Your task to perform on an android device: turn on sleep mode Image 0: 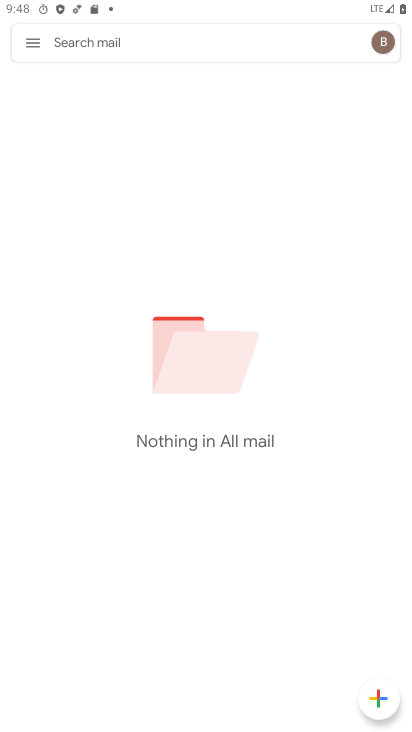
Step 0: press home button
Your task to perform on an android device: turn on sleep mode Image 1: 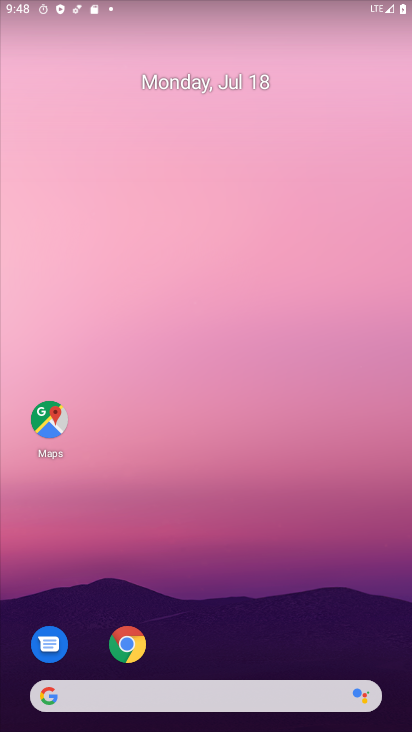
Step 1: drag from (199, 658) to (231, 60)
Your task to perform on an android device: turn on sleep mode Image 2: 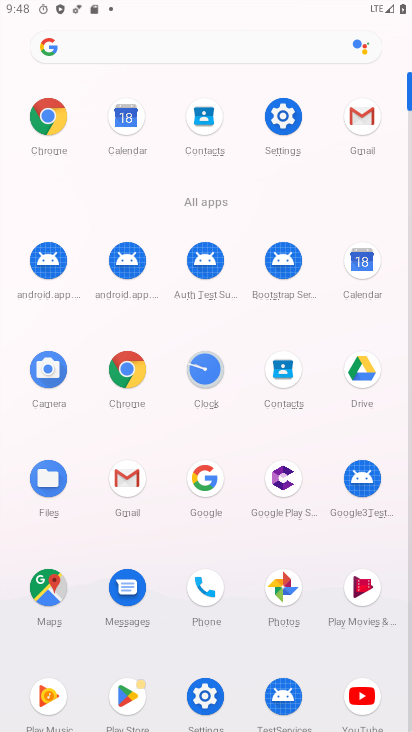
Step 2: click (280, 110)
Your task to perform on an android device: turn on sleep mode Image 3: 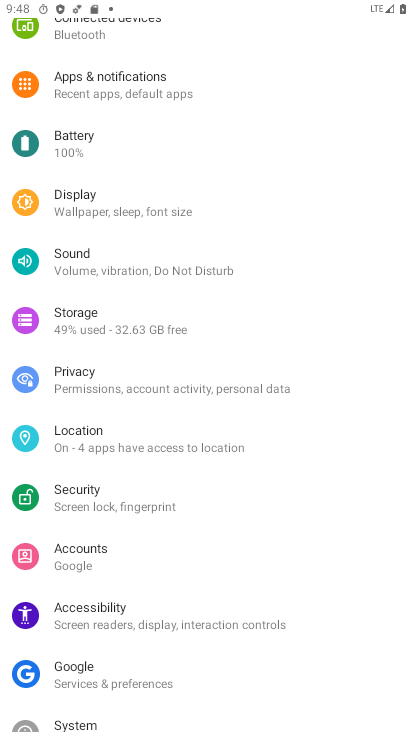
Step 3: click (110, 202)
Your task to perform on an android device: turn on sleep mode Image 4: 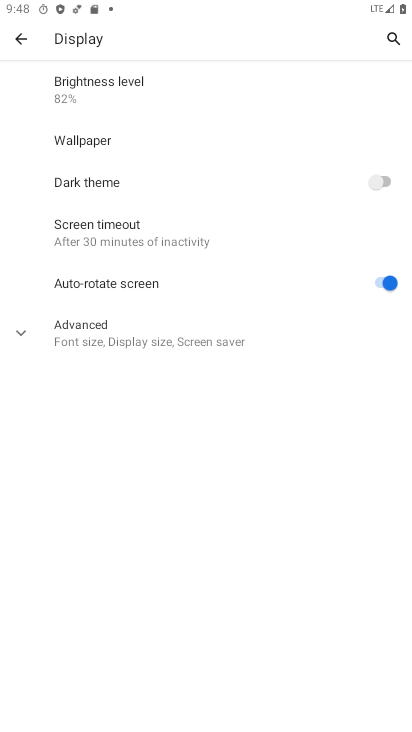
Step 4: click (19, 325)
Your task to perform on an android device: turn on sleep mode Image 5: 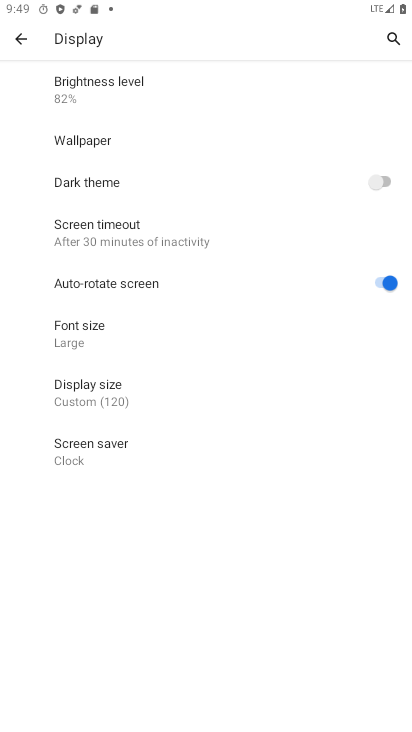
Step 5: task complete